Your task to perform on an android device: Open settings on Google Maps Image 0: 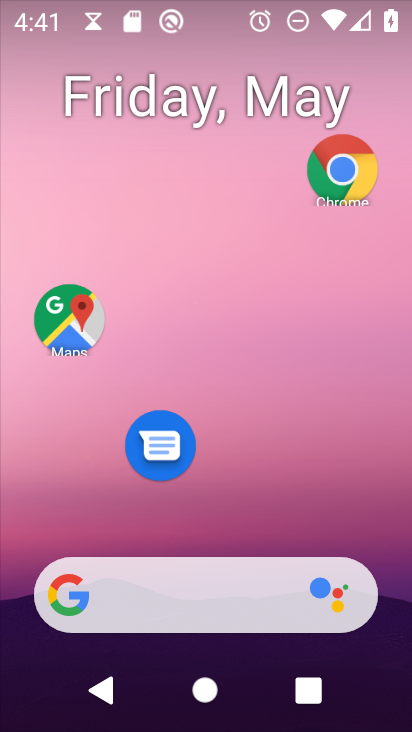
Step 0: drag from (231, 526) to (160, 2)
Your task to perform on an android device: Open settings on Google Maps Image 1: 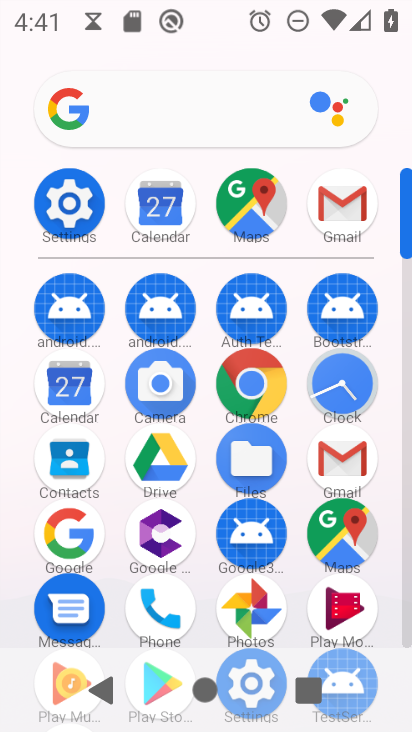
Step 1: click (78, 205)
Your task to perform on an android device: Open settings on Google Maps Image 2: 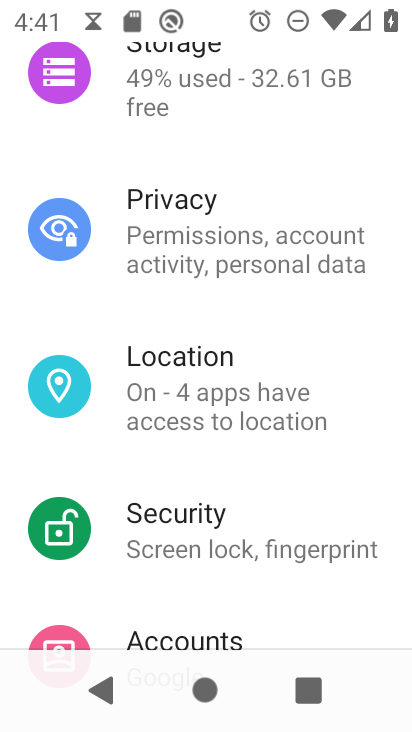
Step 2: drag from (211, 556) to (208, 161)
Your task to perform on an android device: Open settings on Google Maps Image 3: 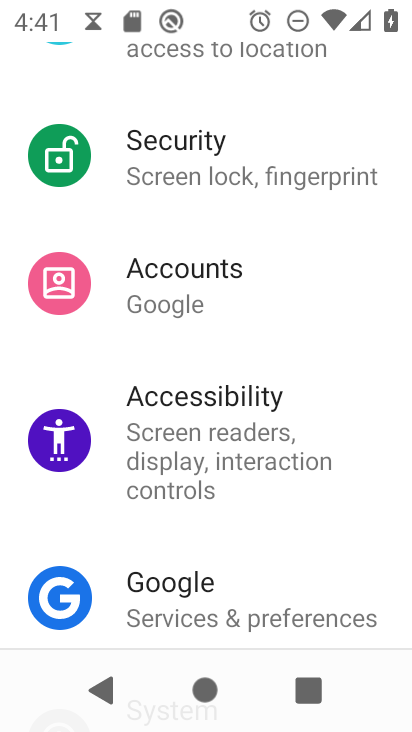
Step 3: press home button
Your task to perform on an android device: Open settings on Google Maps Image 4: 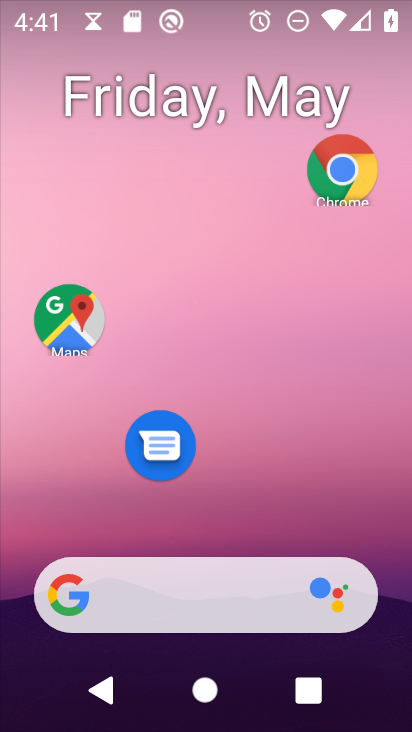
Step 4: drag from (250, 505) to (240, 122)
Your task to perform on an android device: Open settings on Google Maps Image 5: 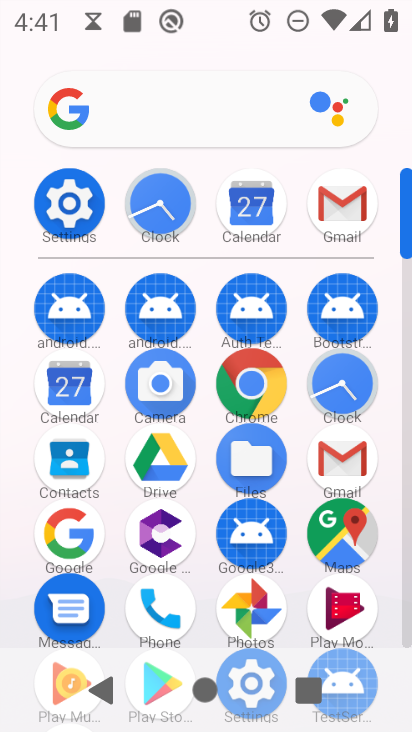
Step 5: click (342, 538)
Your task to perform on an android device: Open settings on Google Maps Image 6: 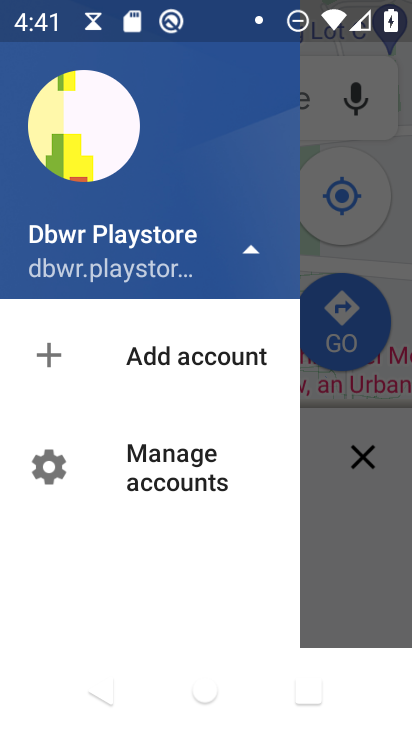
Step 6: press back button
Your task to perform on an android device: Open settings on Google Maps Image 7: 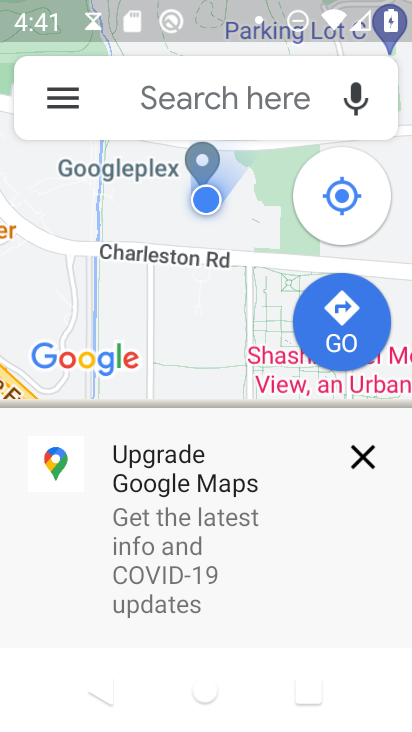
Step 7: click (358, 465)
Your task to perform on an android device: Open settings on Google Maps Image 8: 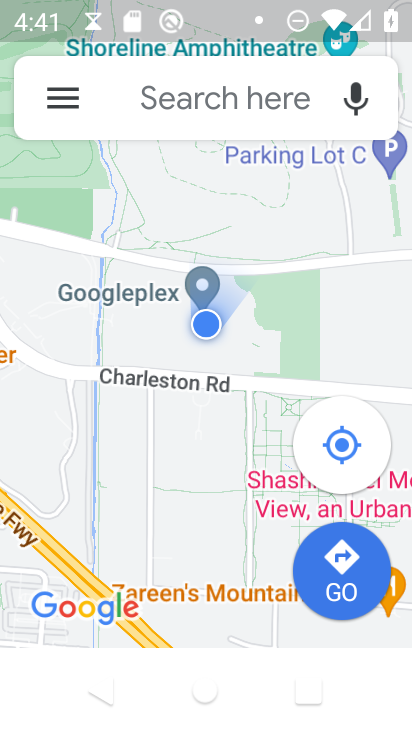
Step 8: click (63, 114)
Your task to perform on an android device: Open settings on Google Maps Image 9: 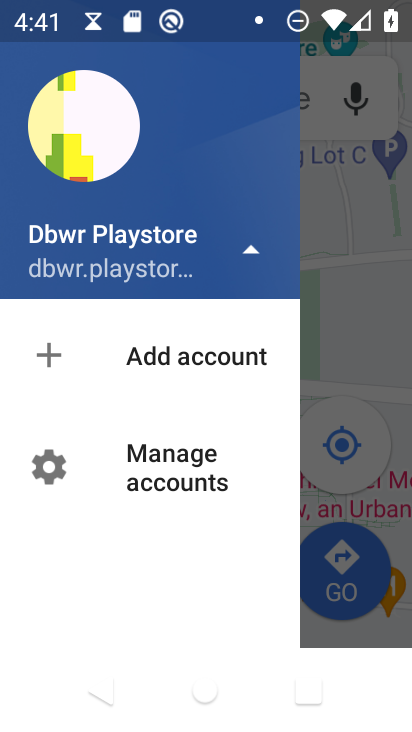
Step 9: drag from (185, 476) to (182, 163)
Your task to perform on an android device: Open settings on Google Maps Image 10: 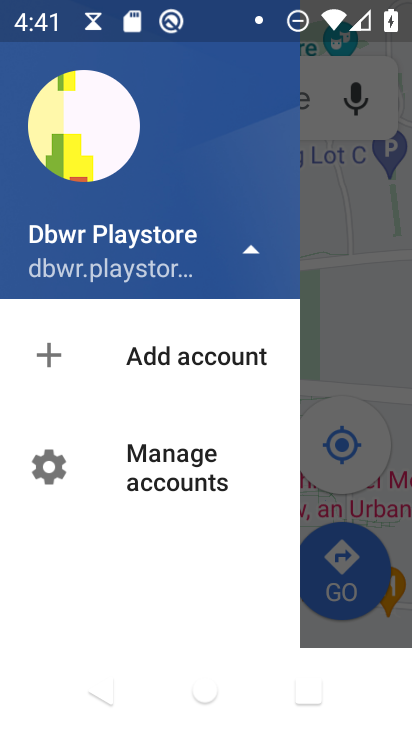
Step 10: press back button
Your task to perform on an android device: Open settings on Google Maps Image 11: 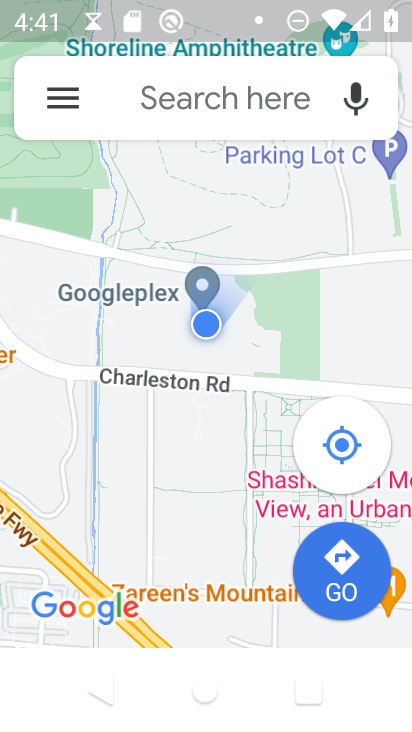
Step 11: click (54, 98)
Your task to perform on an android device: Open settings on Google Maps Image 12: 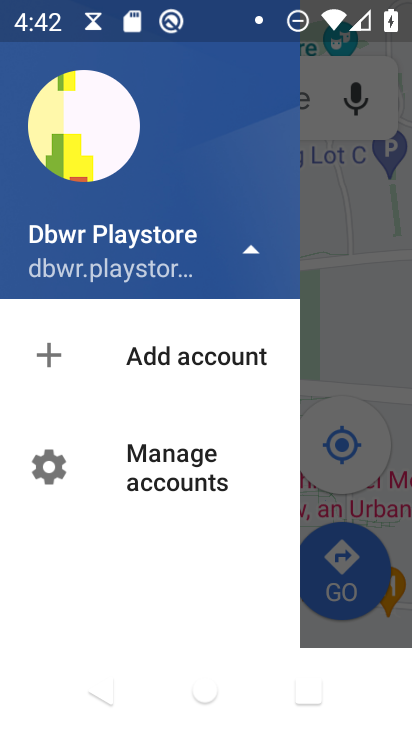
Step 12: click (180, 458)
Your task to perform on an android device: Open settings on Google Maps Image 13: 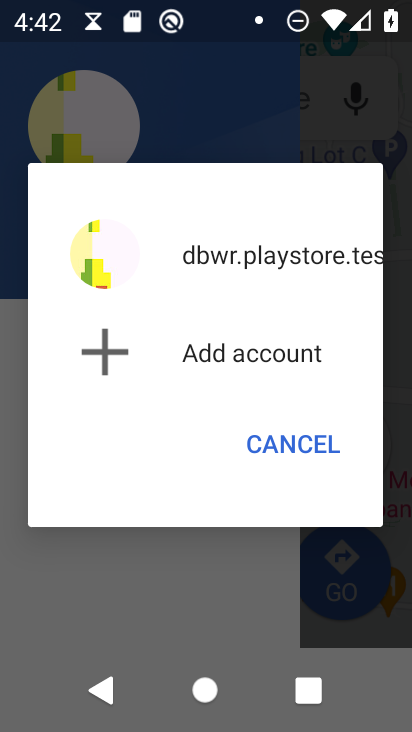
Step 13: click (257, 459)
Your task to perform on an android device: Open settings on Google Maps Image 14: 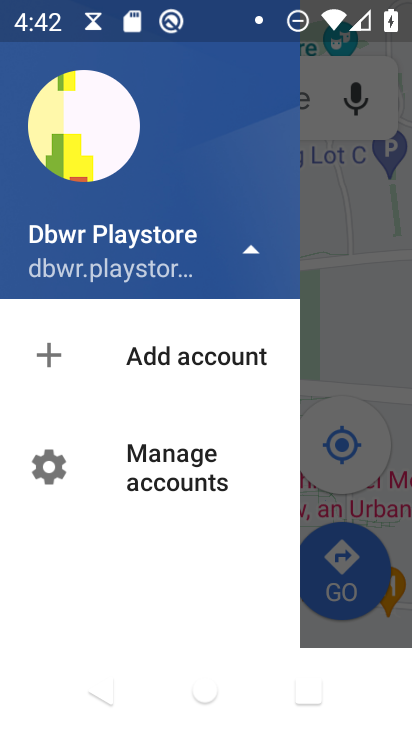
Step 14: click (194, 250)
Your task to perform on an android device: Open settings on Google Maps Image 15: 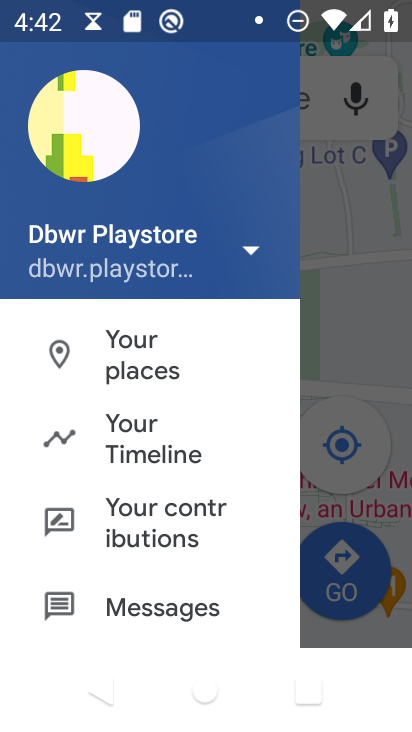
Step 15: drag from (175, 579) to (180, 125)
Your task to perform on an android device: Open settings on Google Maps Image 16: 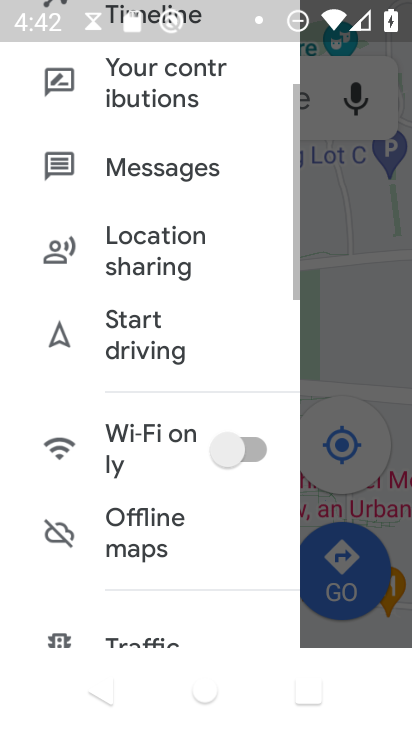
Step 16: drag from (158, 581) to (182, 261)
Your task to perform on an android device: Open settings on Google Maps Image 17: 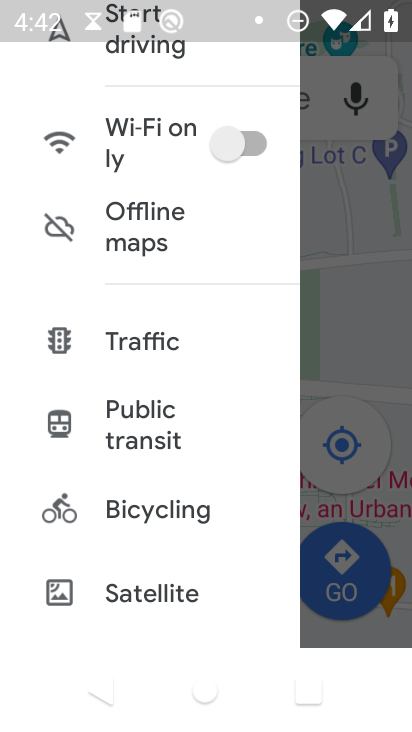
Step 17: drag from (160, 569) to (171, 219)
Your task to perform on an android device: Open settings on Google Maps Image 18: 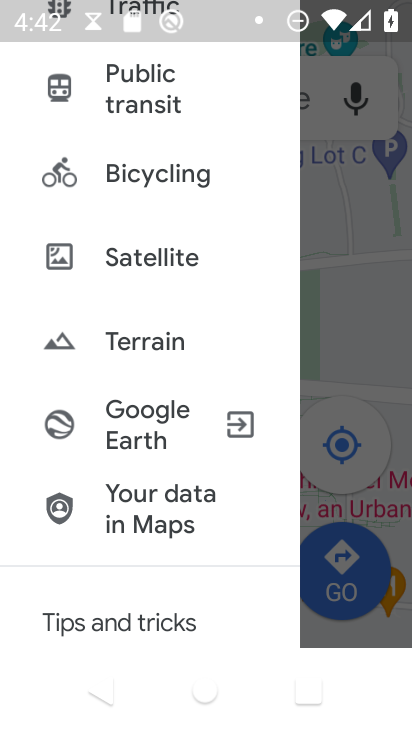
Step 18: drag from (162, 550) to (177, 173)
Your task to perform on an android device: Open settings on Google Maps Image 19: 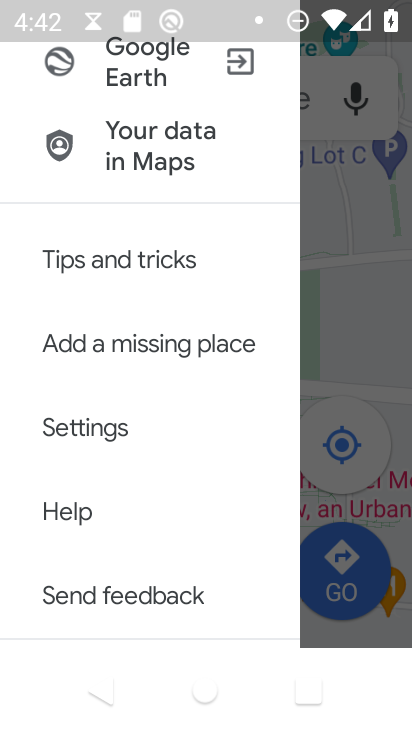
Step 19: click (116, 433)
Your task to perform on an android device: Open settings on Google Maps Image 20: 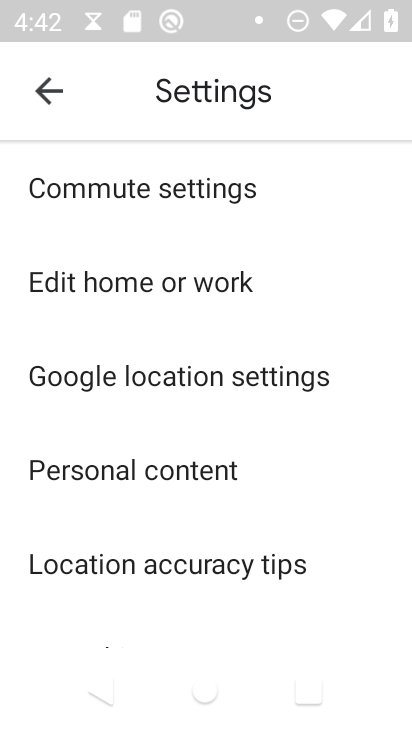
Step 20: click (195, 197)
Your task to perform on an android device: Open settings on Google Maps Image 21: 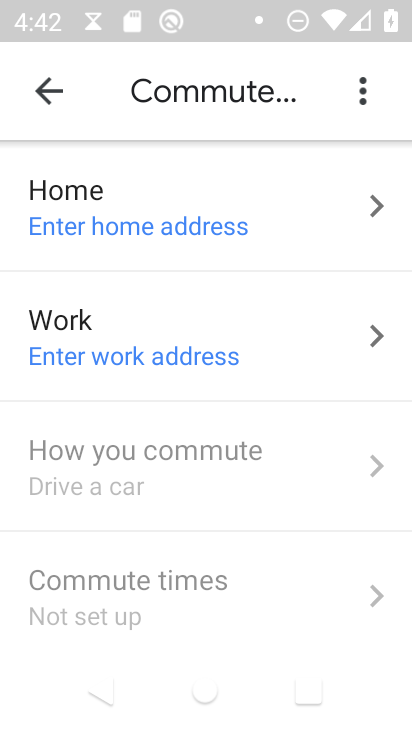
Step 21: press home button
Your task to perform on an android device: Open settings on Google Maps Image 22: 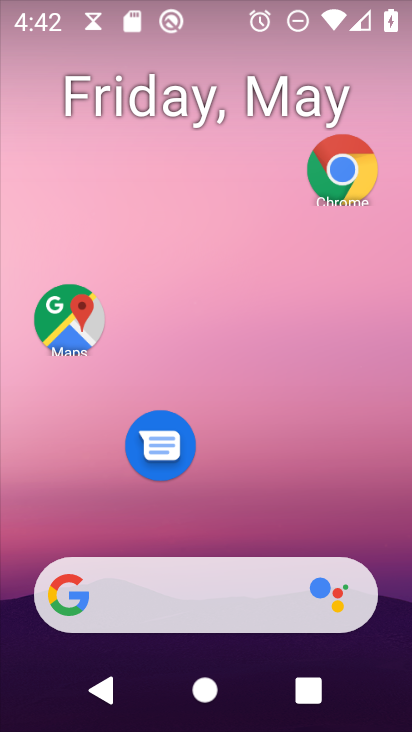
Step 22: drag from (187, 528) to (131, 73)
Your task to perform on an android device: Open settings on Google Maps Image 23: 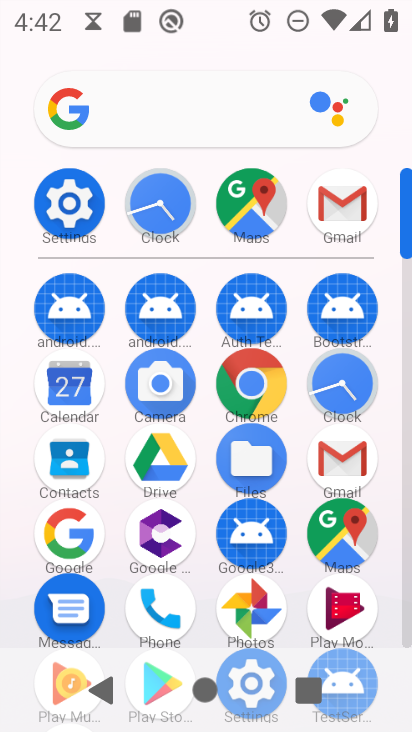
Step 23: click (243, 235)
Your task to perform on an android device: Open settings on Google Maps Image 24: 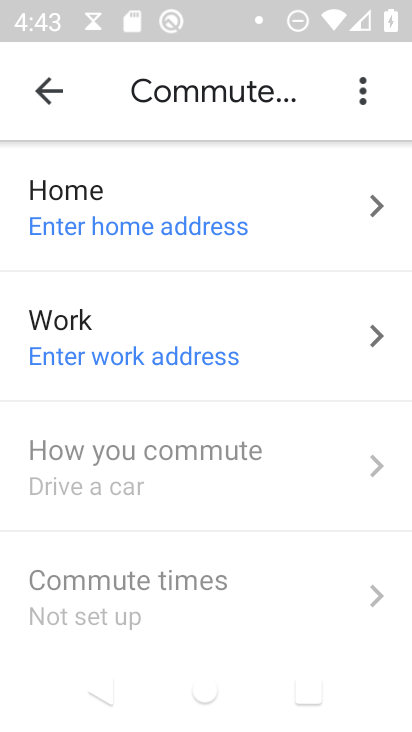
Step 24: click (66, 112)
Your task to perform on an android device: Open settings on Google Maps Image 25: 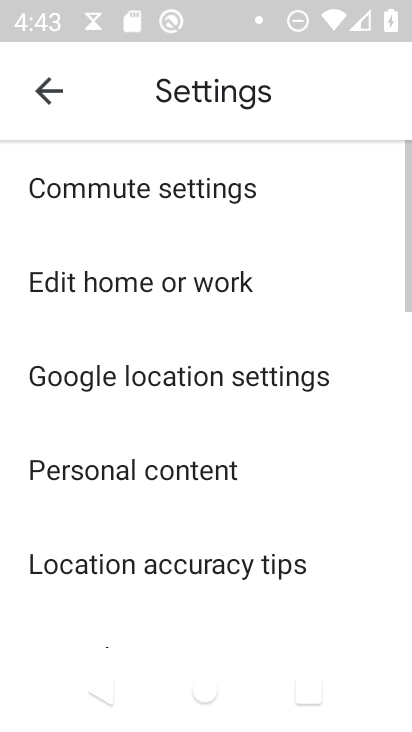
Step 25: click (50, 89)
Your task to perform on an android device: Open settings on Google Maps Image 26: 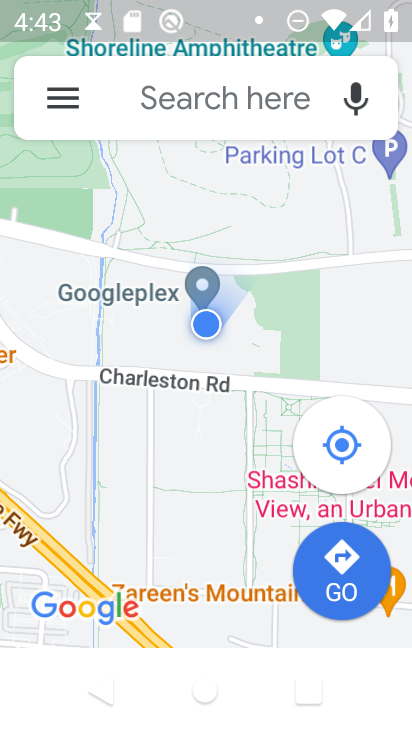
Step 26: click (73, 119)
Your task to perform on an android device: Open settings on Google Maps Image 27: 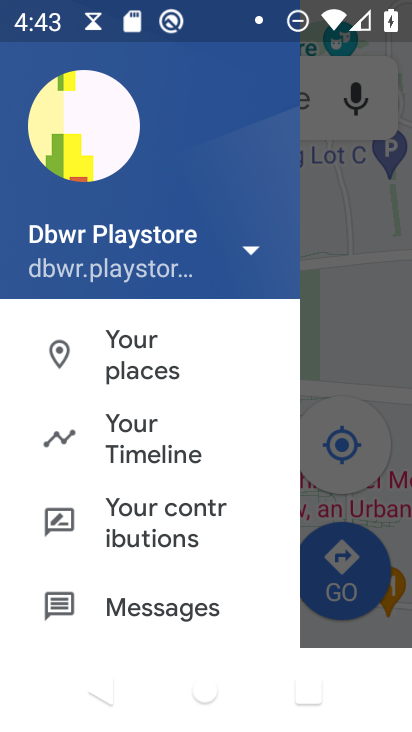
Step 27: drag from (177, 550) to (162, 126)
Your task to perform on an android device: Open settings on Google Maps Image 28: 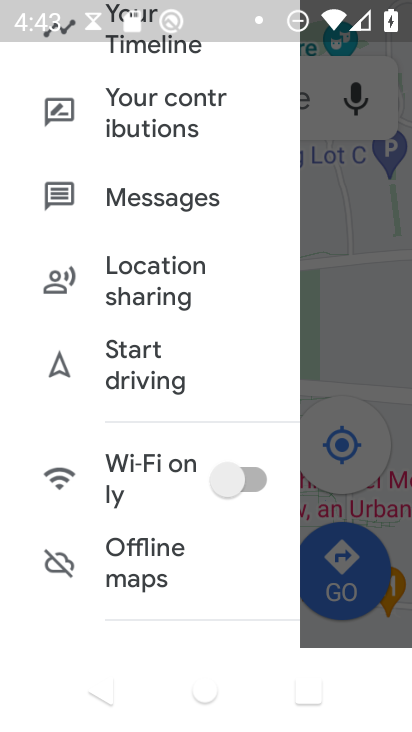
Step 28: drag from (152, 588) to (153, 365)
Your task to perform on an android device: Open settings on Google Maps Image 29: 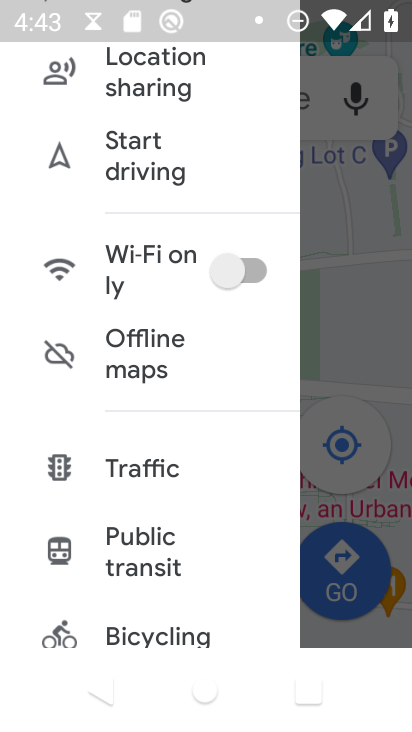
Step 29: drag from (151, 558) to (151, 316)
Your task to perform on an android device: Open settings on Google Maps Image 30: 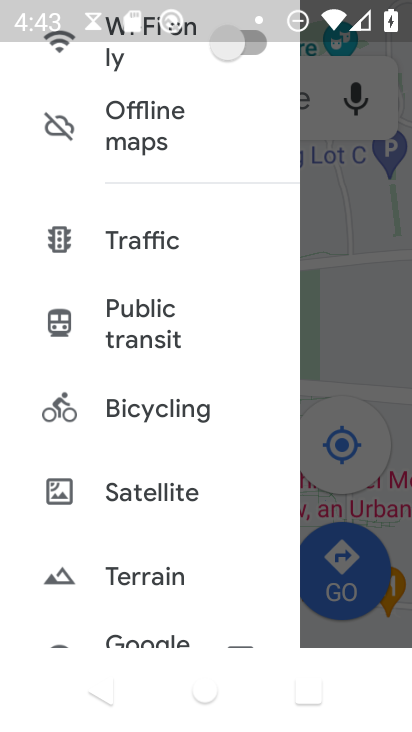
Step 30: drag from (164, 443) to (182, 297)
Your task to perform on an android device: Open settings on Google Maps Image 31: 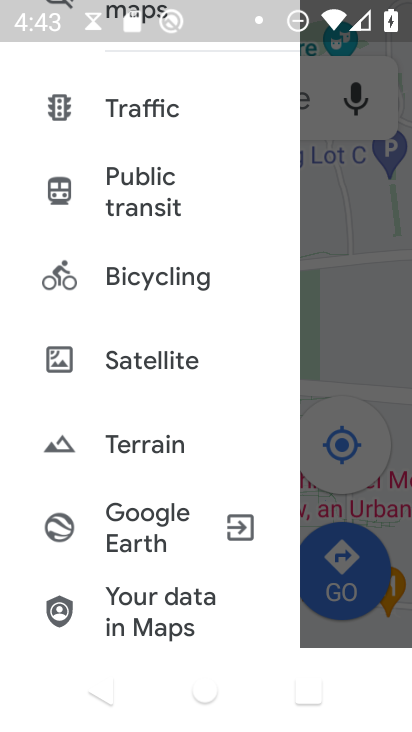
Step 31: drag from (146, 532) to (195, 197)
Your task to perform on an android device: Open settings on Google Maps Image 32: 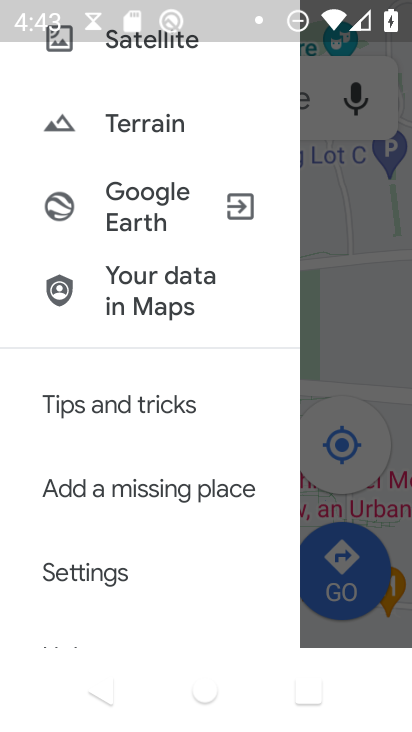
Step 32: click (99, 575)
Your task to perform on an android device: Open settings on Google Maps Image 33: 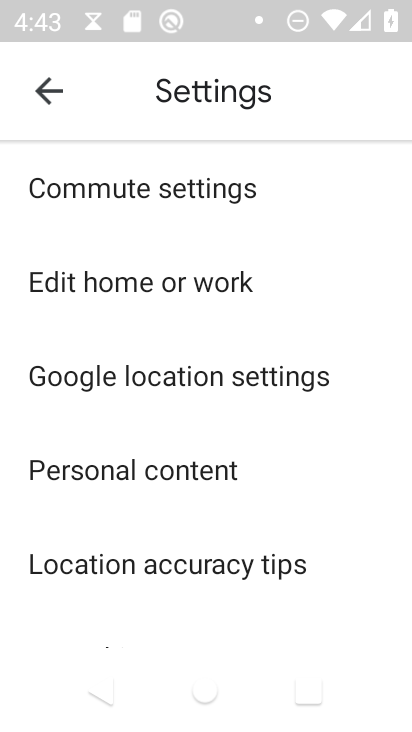
Step 33: task complete